Your task to perform on an android device: What is the speed of a skateboard? Image 0: 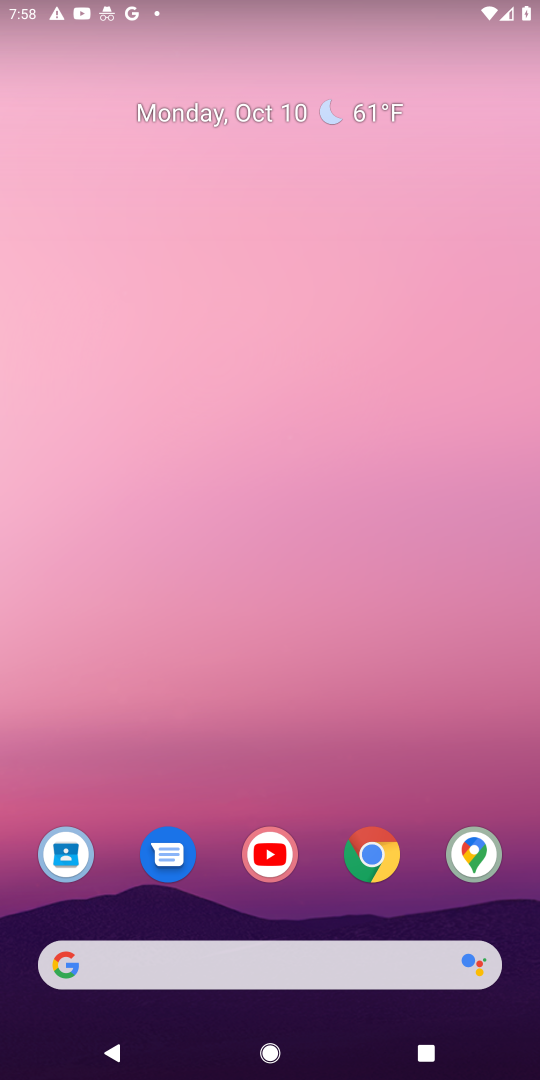
Step 0: click (378, 860)
Your task to perform on an android device: What is the speed of a skateboard? Image 1: 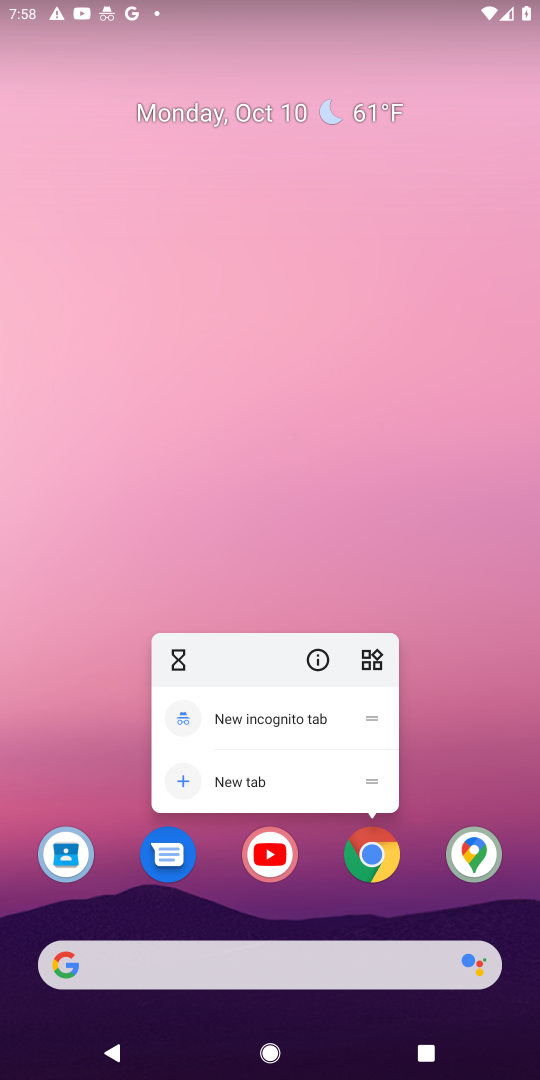
Step 1: click (364, 861)
Your task to perform on an android device: What is the speed of a skateboard? Image 2: 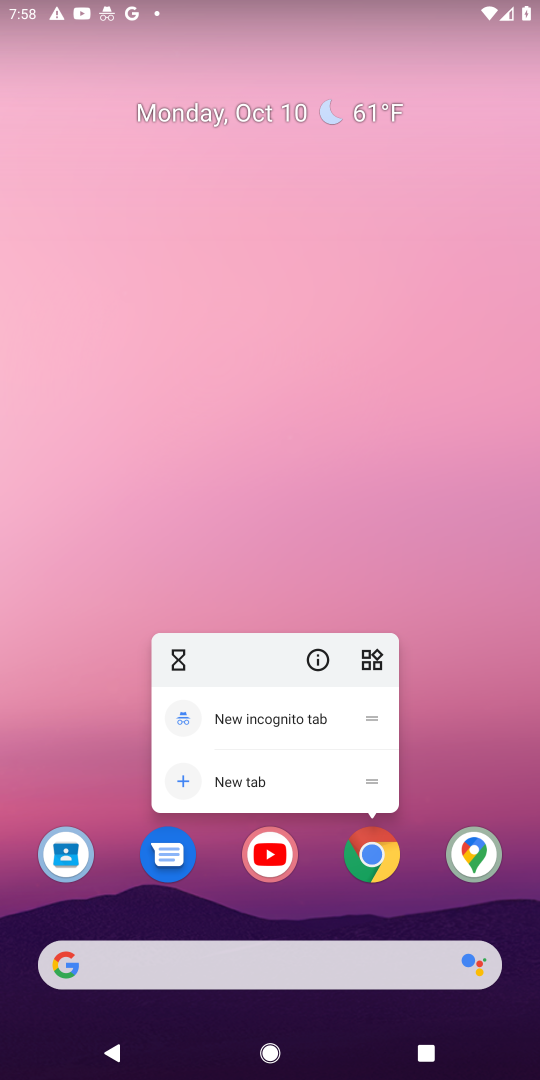
Step 2: click (368, 857)
Your task to perform on an android device: What is the speed of a skateboard? Image 3: 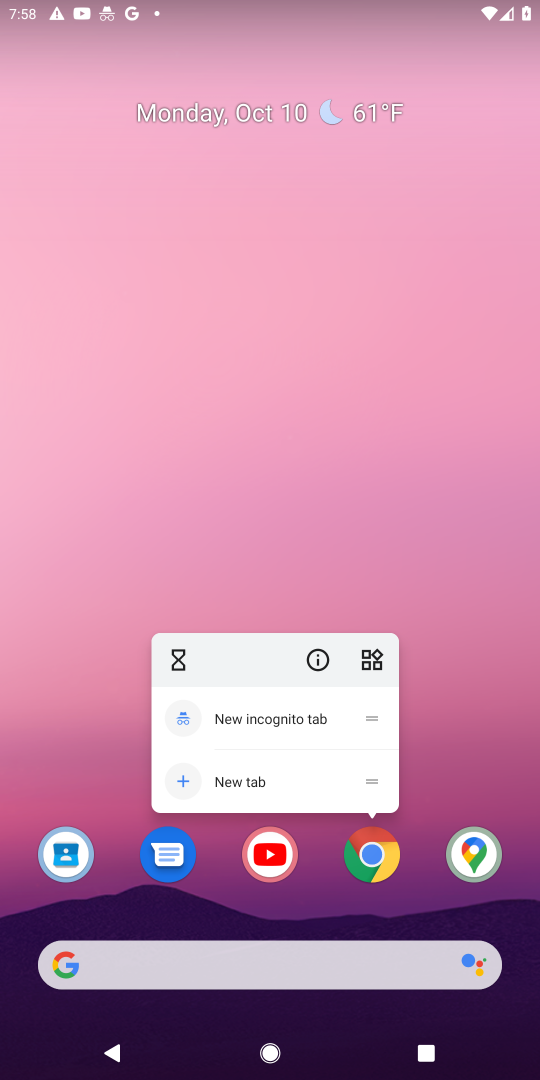
Step 3: click (376, 854)
Your task to perform on an android device: What is the speed of a skateboard? Image 4: 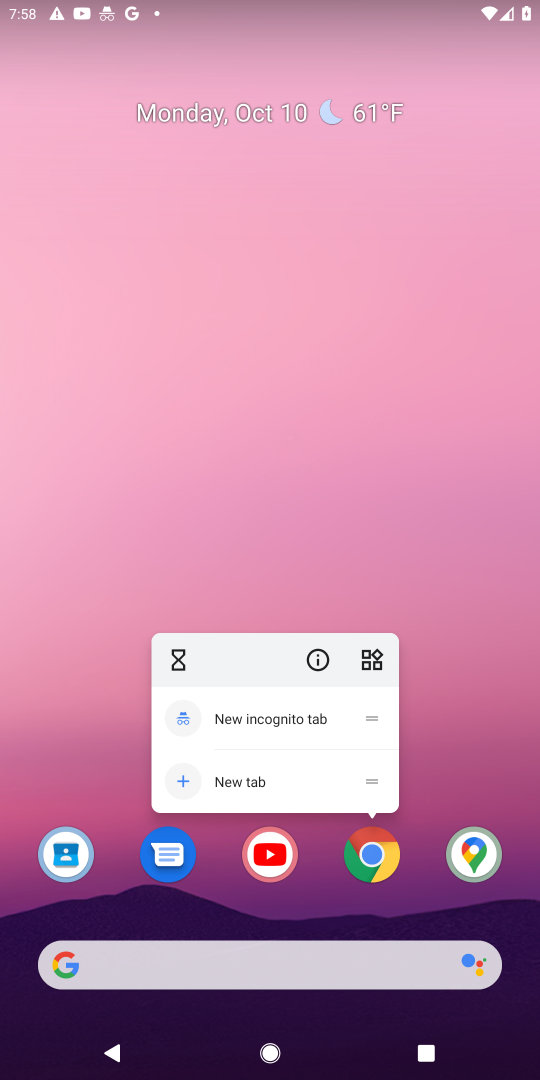
Step 4: click (376, 858)
Your task to perform on an android device: What is the speed of a skateboard? Image 5: 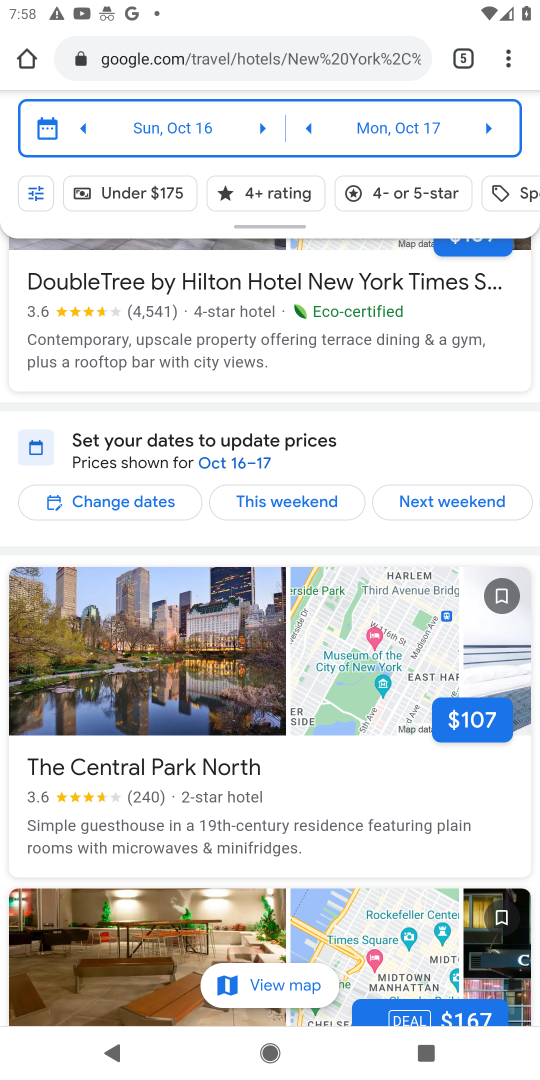
Step 5: click (316, 58)
Your task to perform on an android device: What is the speed of a skateboard? Image 6: 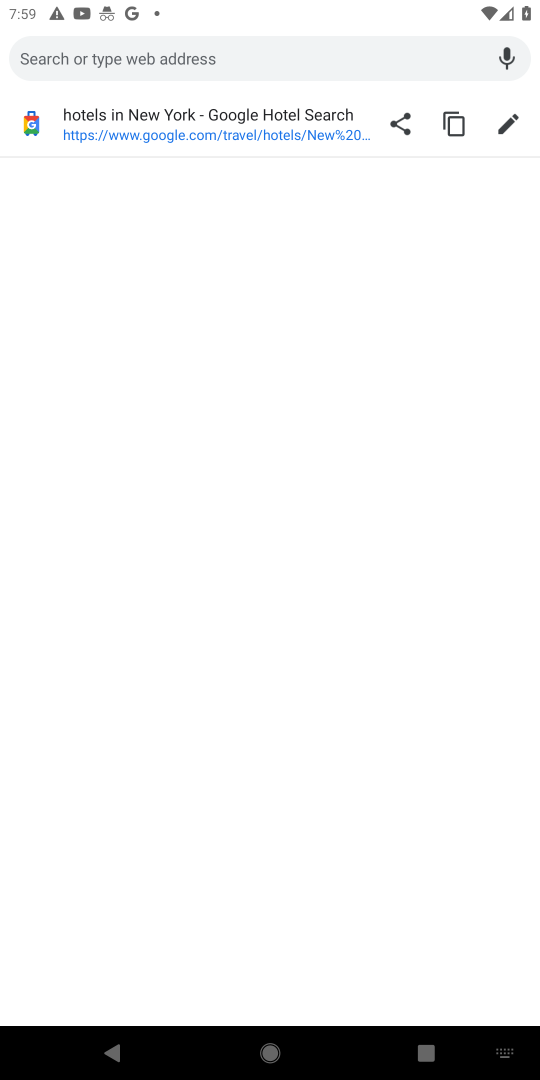
Step 6: type "speed of a skateboard"
Your task to perform on an android device: What is the speed of a skateboard? Image 7: 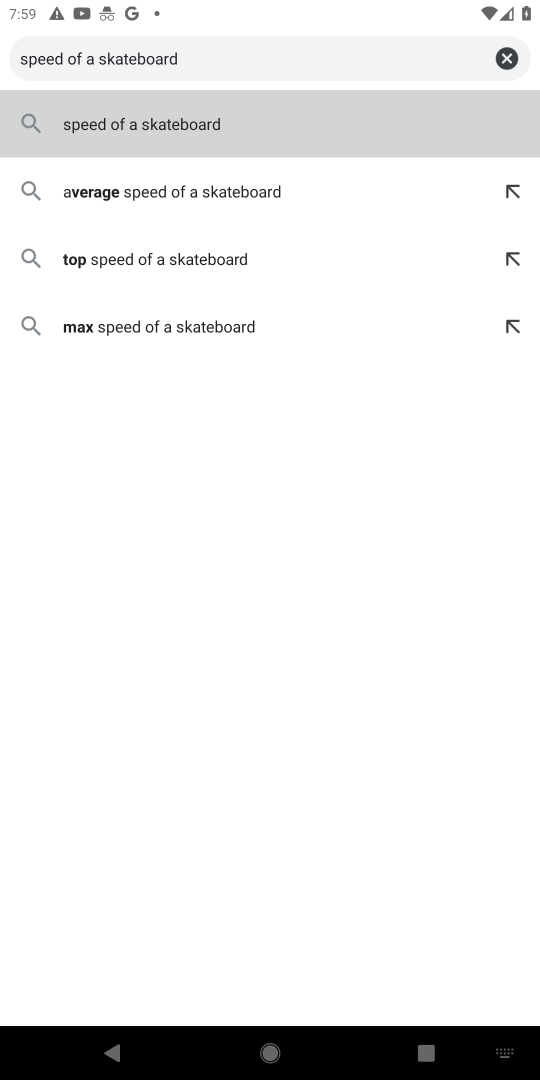
Step 7: click (183, 118)
Your task to perform on an android device: What is the speed of a skateboard? Image 8: 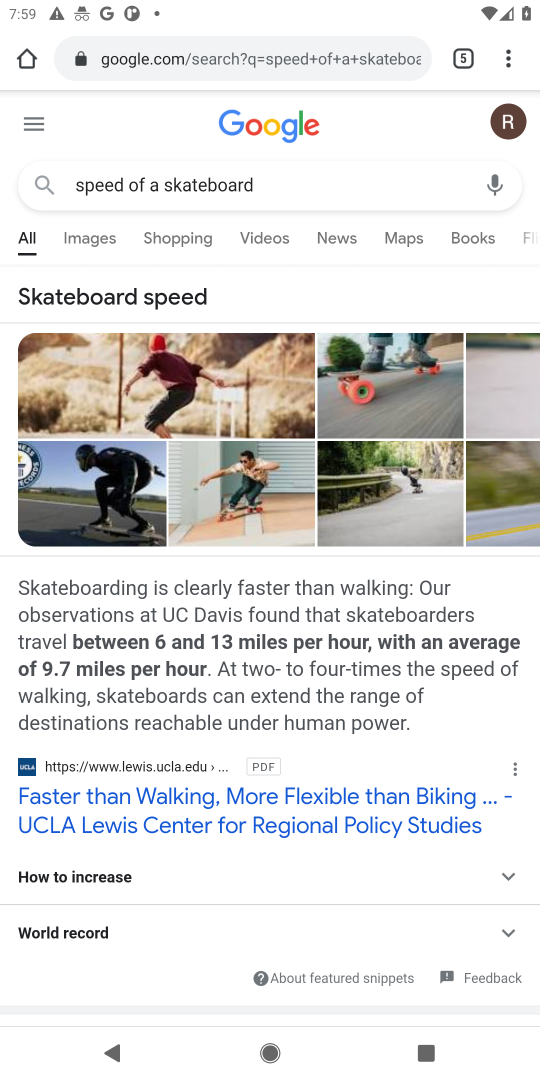
Step 8: drag from (221, 765) to (346, 531)
Your task to perform on an android device: What is the speed of a skateboard? Image 9: 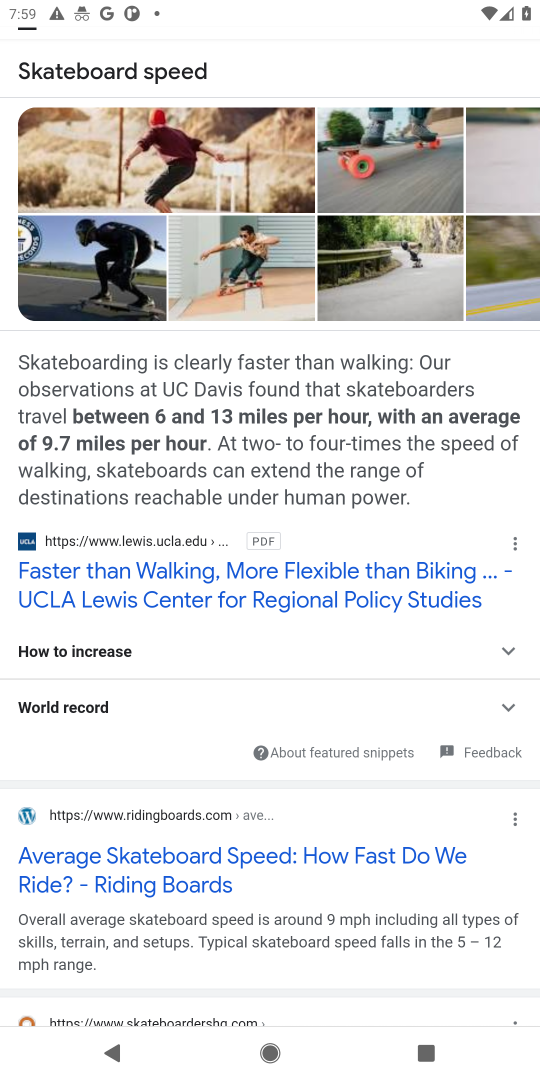
Step 9: click (228, 577)
Your task to perform on an android device: What is the speed of a skateboard? Image 10: 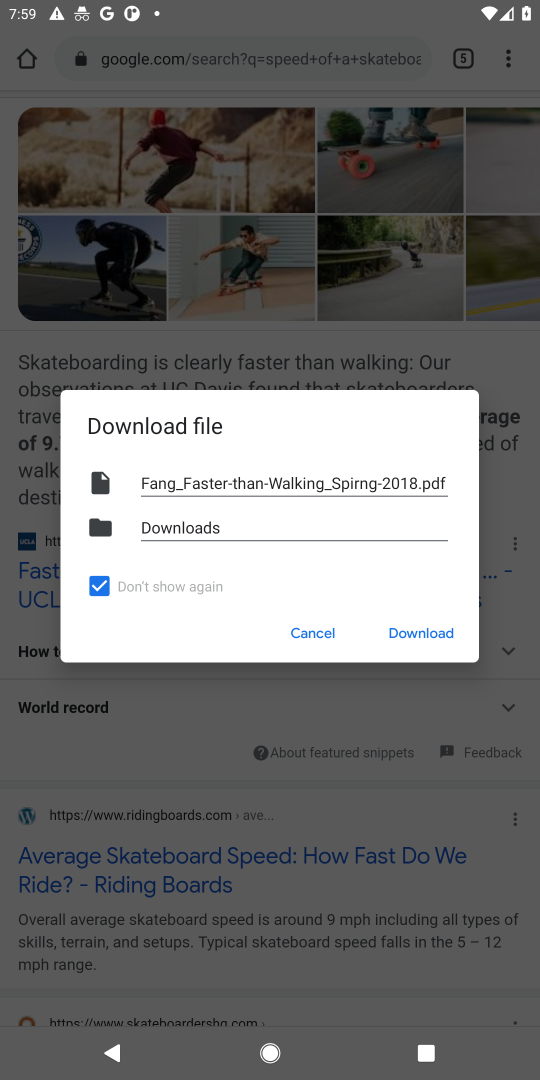
Step 10: click (215, 735)
Your task to perform on an android device: What is the speed of a skateboard? Image 11: 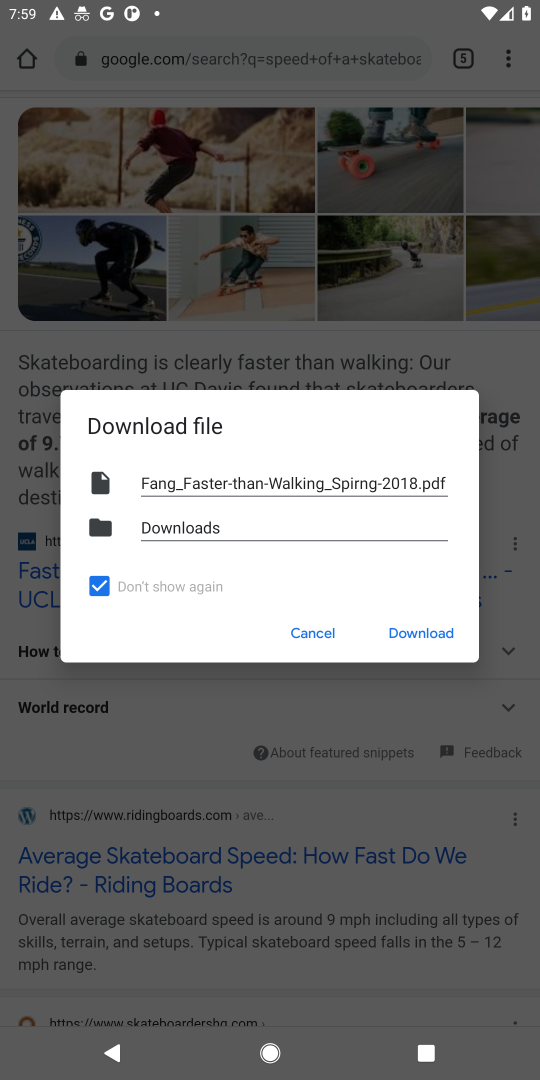
Step 11: click (296, 638)
Your task to perform on an android device: What is the speed of a skateboard? Image 12: 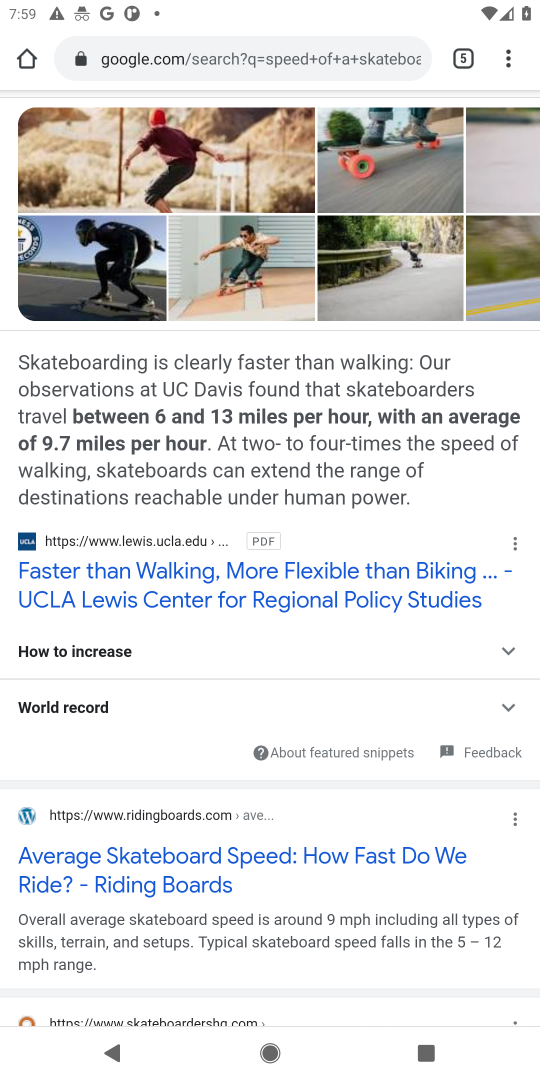
Step 12: click (59, 561)
Your task to perform on an android device: What is the speed of a skateboard? Image 13: 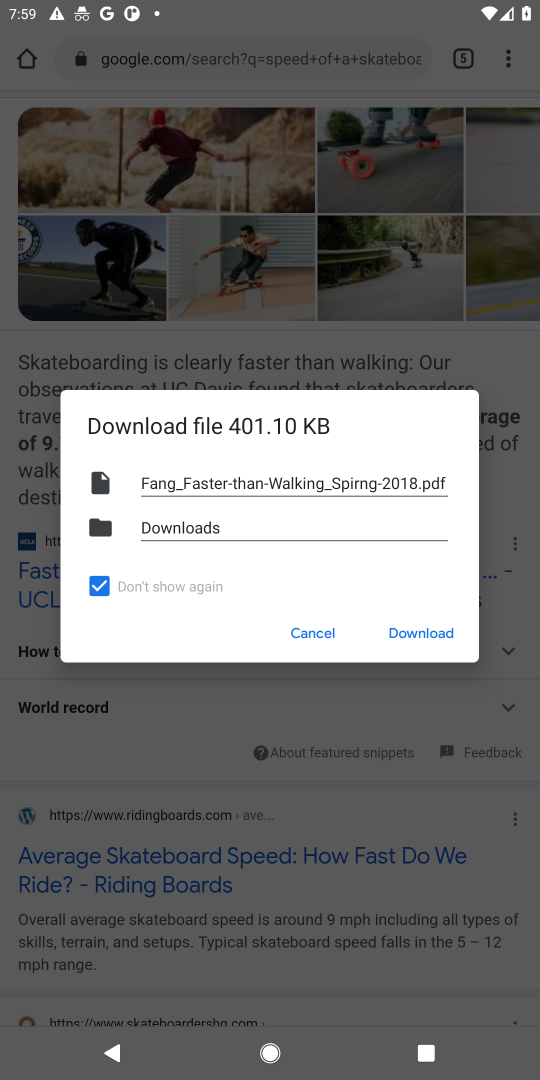
Step 13: click (167, 717)
Your task to perform on an android device: What is the speed of a skateboard? Image 14: 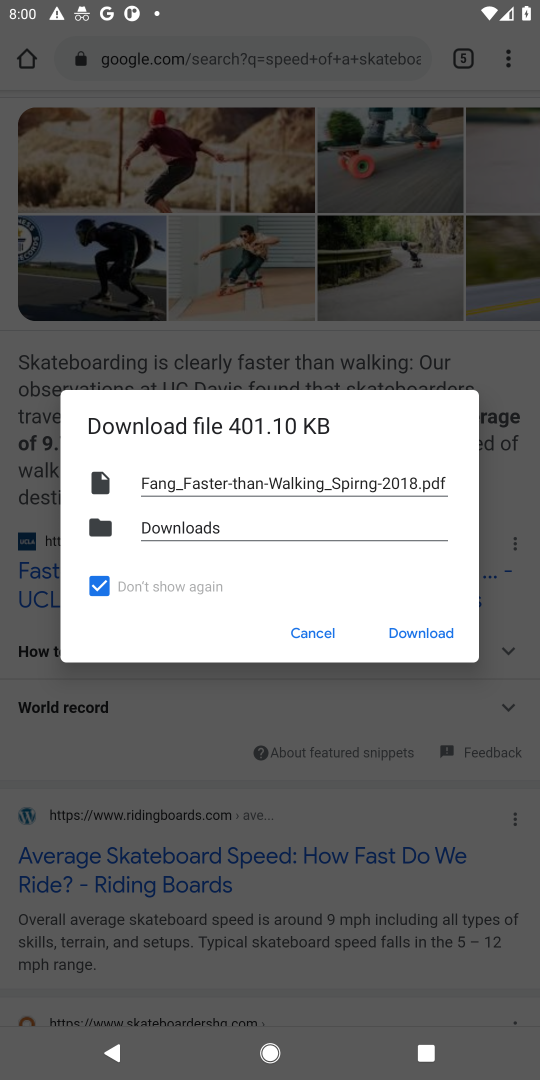
Step 14: click (317, 634)
Your task to perform on an android device: What is the speed of a skateboard? Image 15: 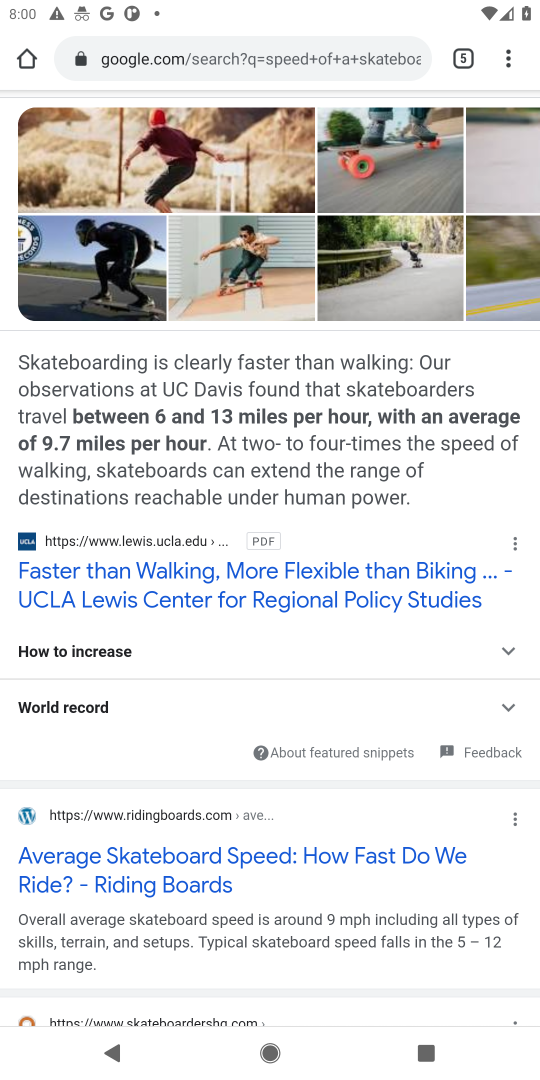
Step 15: drag from (212, 902) to (364, 496)
Your task to perform on an android device: What is the speed of a skateboard? Image 16: 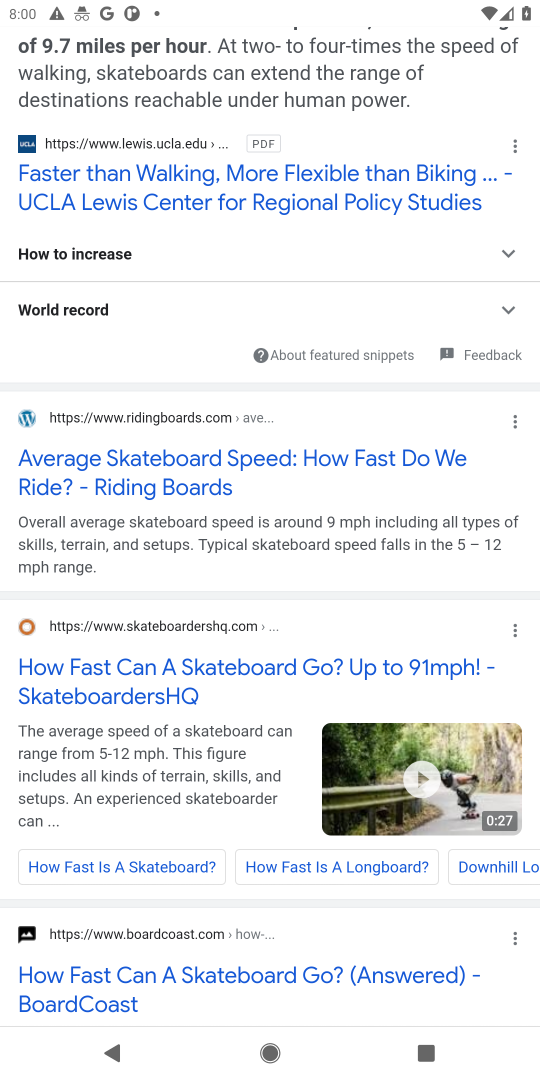
Step 16: click (317, 458)
Your task to perform on an android device: What is the speed of a skateboard? Image 17: 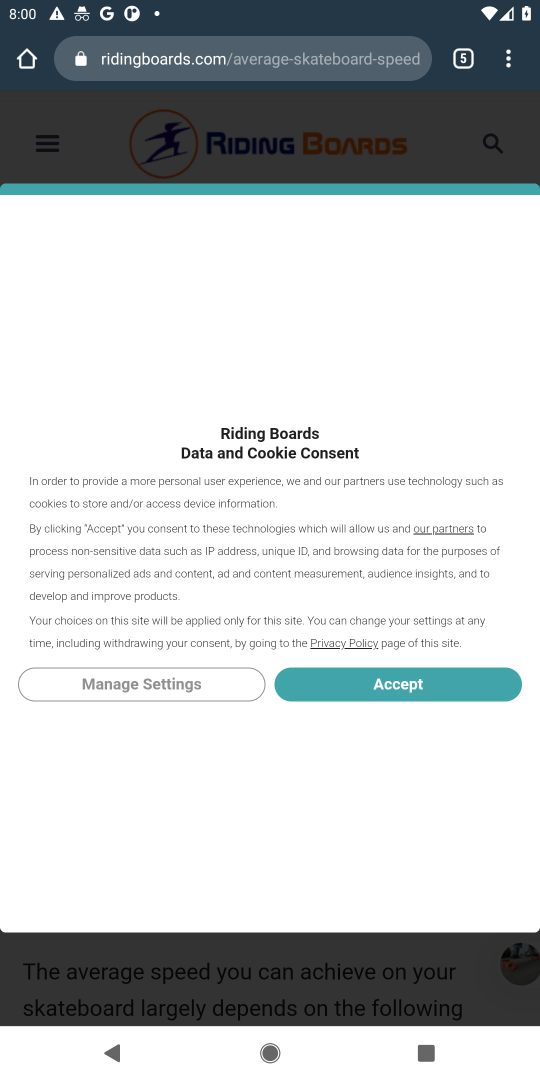
Step 17: click (380, 686)
Your task to perform on an android device: What is the speed of a skateboard? Image 18: 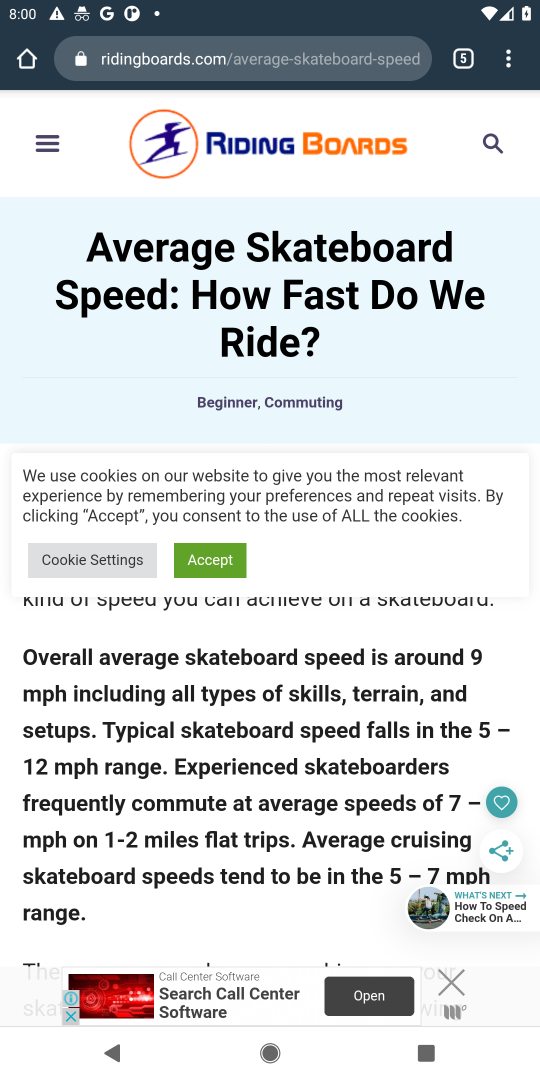
Step 18: task complete